Your task to perform on an android device: turn off data saver in the chrome app Image 0: 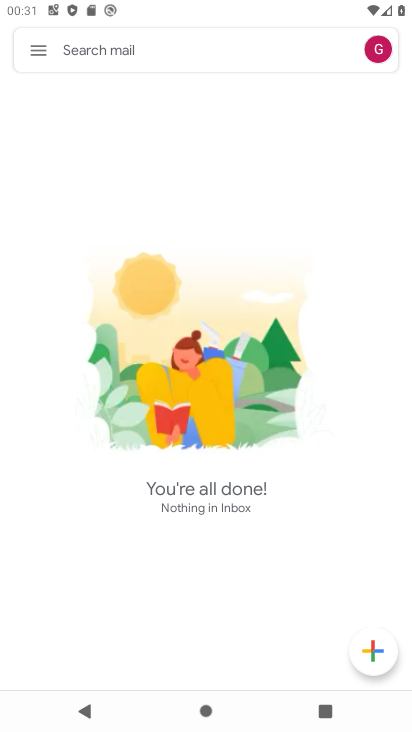
Step 0: press home button
Your task to perform on an android device: turn off data saver in the chrome app Image 1: 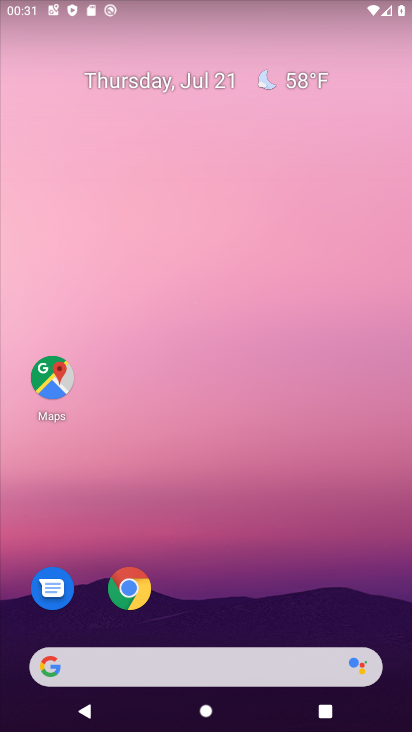
Step 1: click (126, 580)
Your task to perform on an android device: turn off data saver in the chrome app Image 2: 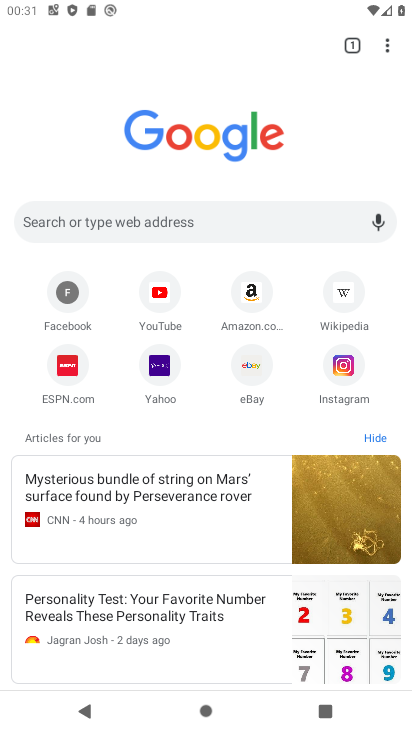
Step 2: click (392, 51)
Your task to perform on an android device: turn off data saver in the chrome app Image 3: 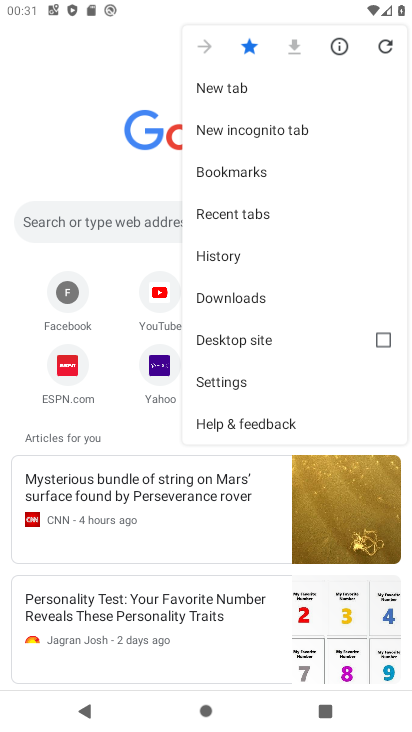
Step 3: click (224, 386)
Your task to perform on an android device: turn off data saver in the chrome app Image 4: 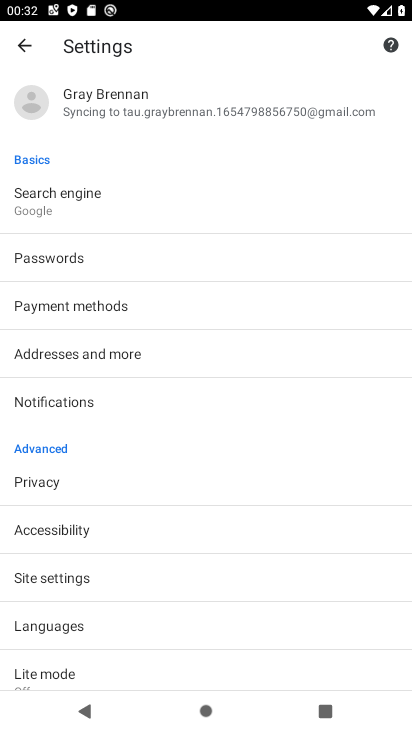
Step 4: drag from (97, 633) to (122, 386)
Your task to perform on an android device: turn off data saver in the chrome app Image 5: 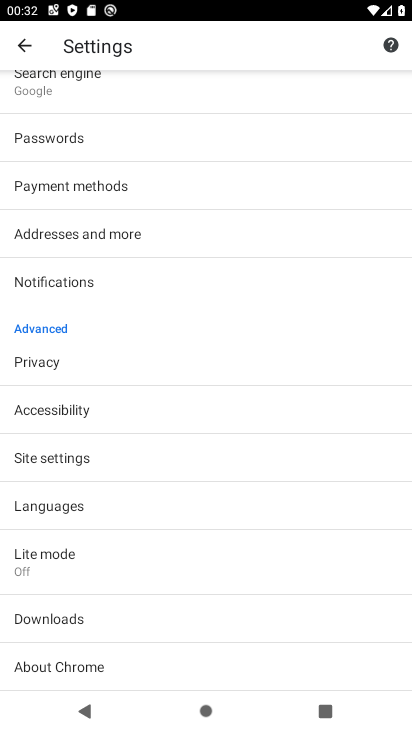
Step 5: click (62, 564)
Your task to perform on an android device: turn off data saver in the chrome app Image 6: 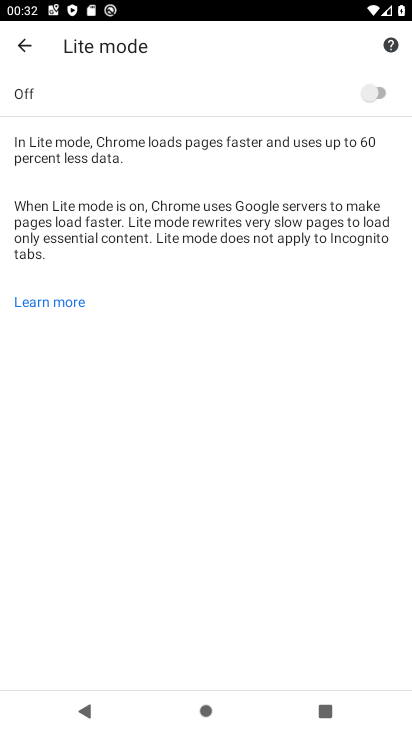
Step 6: task complete